Your task to perform on an android device: set an alarm Image 0: 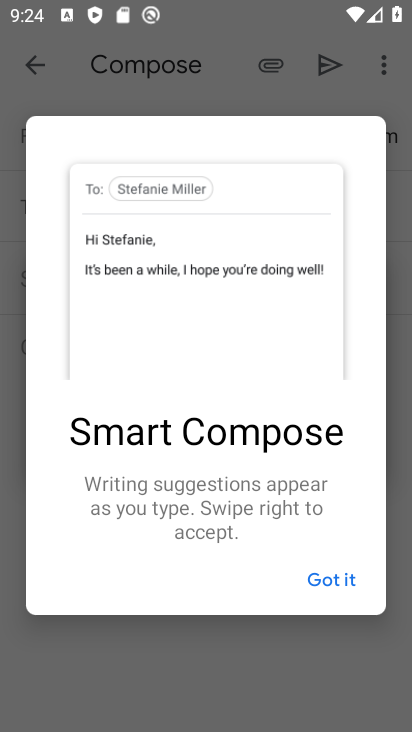
Step 0: press home button
Your task to perform on an android device: set an alarm Image 1: 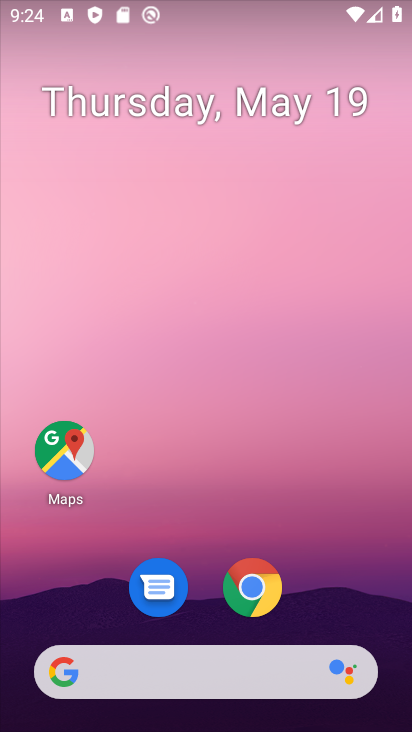
Step 1: drag from (337, 558) to (360, 24)
Your task to perform on an android device: set an alarm Image 2: 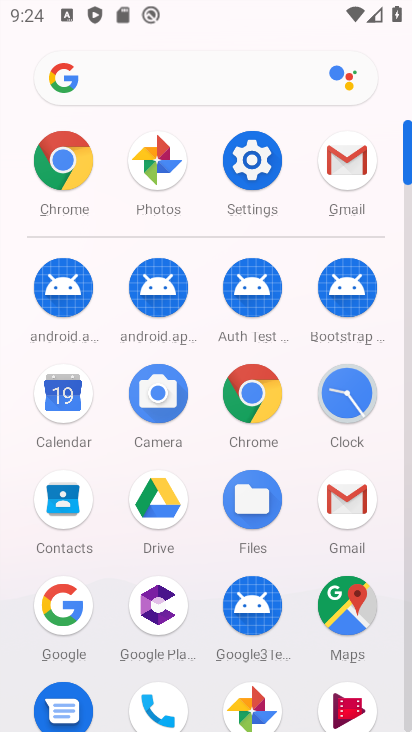
Step 2: click (343, 388)
Your task to perform on an android device: set an alarm Image 3: 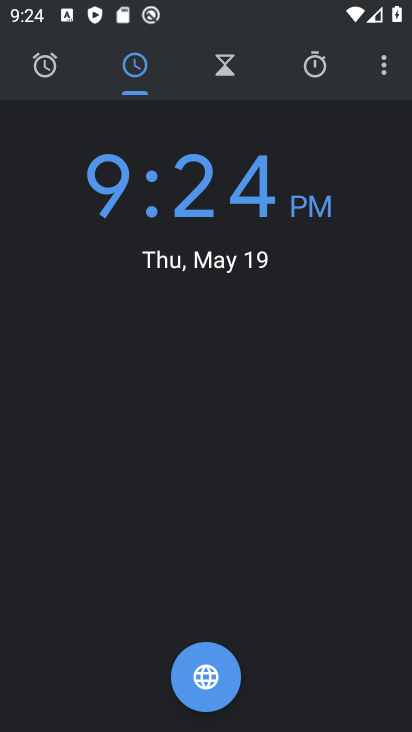
Step 3: click (49, 79)
Your task to perform on an android device: set an alarm Image 4: 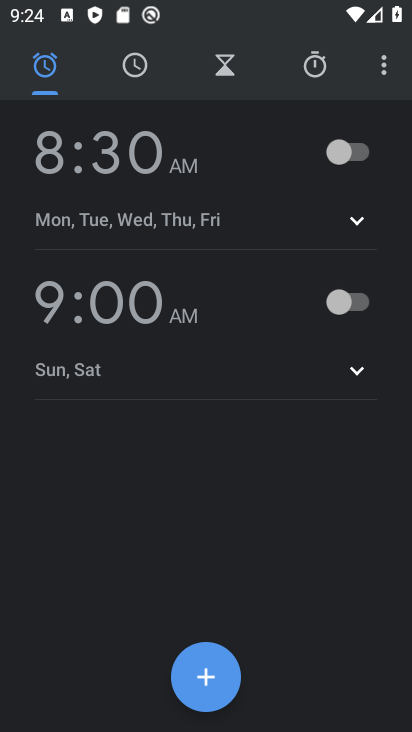
Step 4: click (339, 165)
Your task to perform on an android device: set an alarm Image 5: 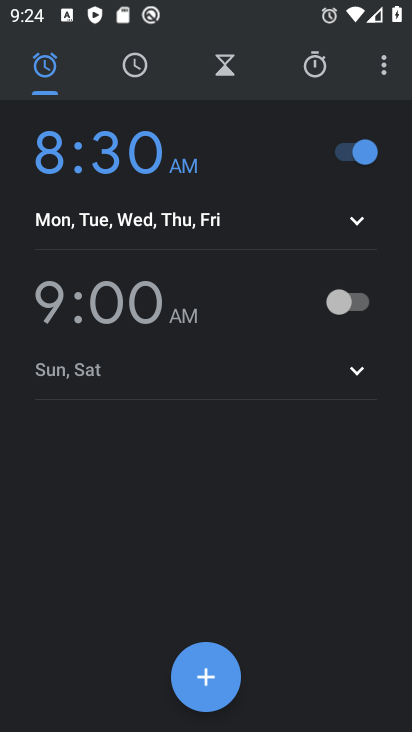
Step 5: task complete